Your task to perform on an android device: read, delete, or share a saved page in the chrome app Image 0: 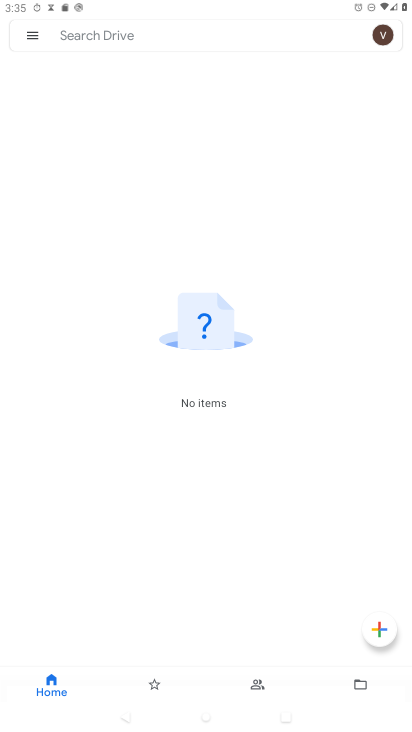
Step 0: press home button
Your task to perform on an android device: read, delete, or share a saved page in the chrome app Image 1: 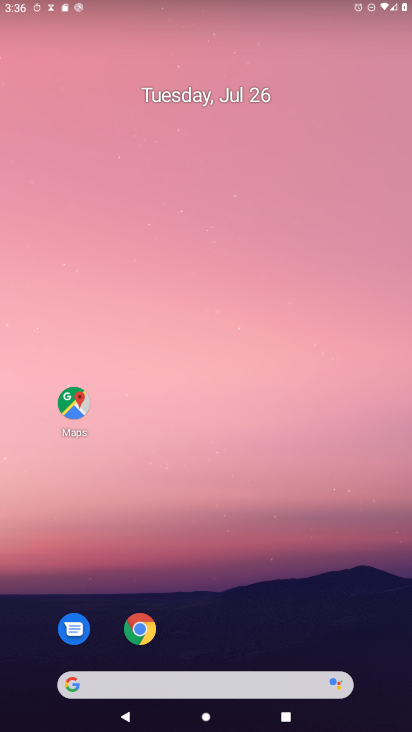
Step 1: drag from (194, 678) to (237, 169)
Your task to perform on an android device: read, delete, or share a saved page in the chrome app Image 2: 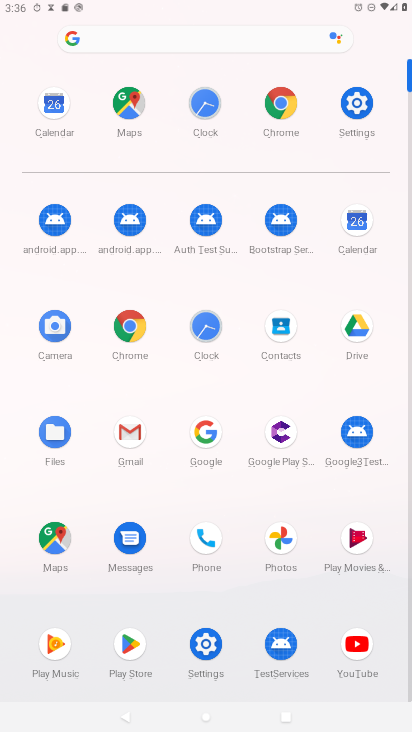
Step 2: click (130, 314)
Your task to perform on an android device: read, delete, or share a saved page in the chrome app Image 3: 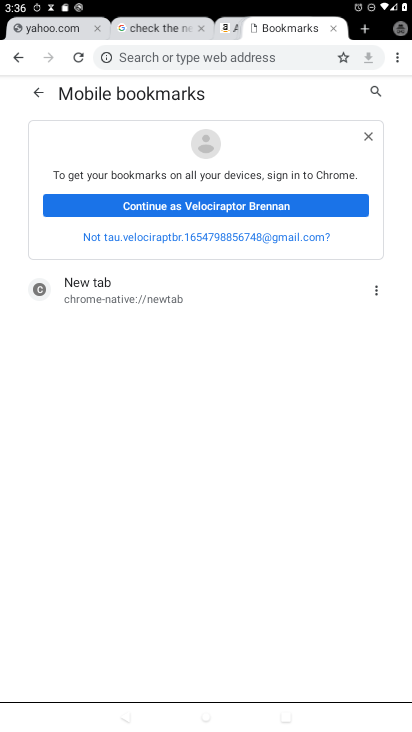
Step 3: task complete